Your task to perform on an android device: View the shopping cart on amazon. Search for razer blade on amazon, select the first entry, add it to the cart, then select checkout. Image 0: 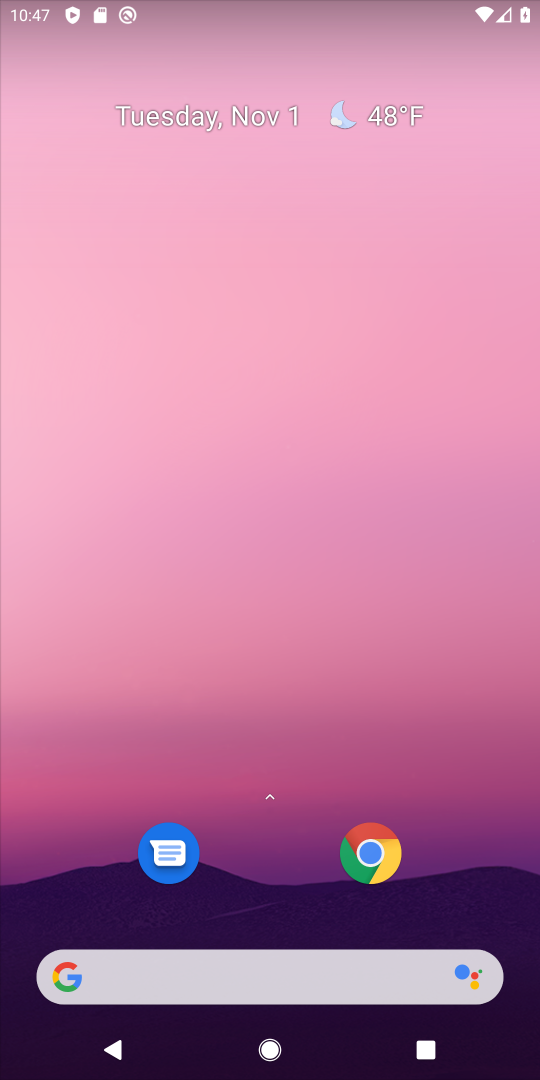
Step 0: drag from (332, 1024) to (406, 80)
Your task to perform on an android device: View the shopping cart on amazon. Search for razer blade on amazon, select the first entry, add it to the cart, then select checkout. Image 1: 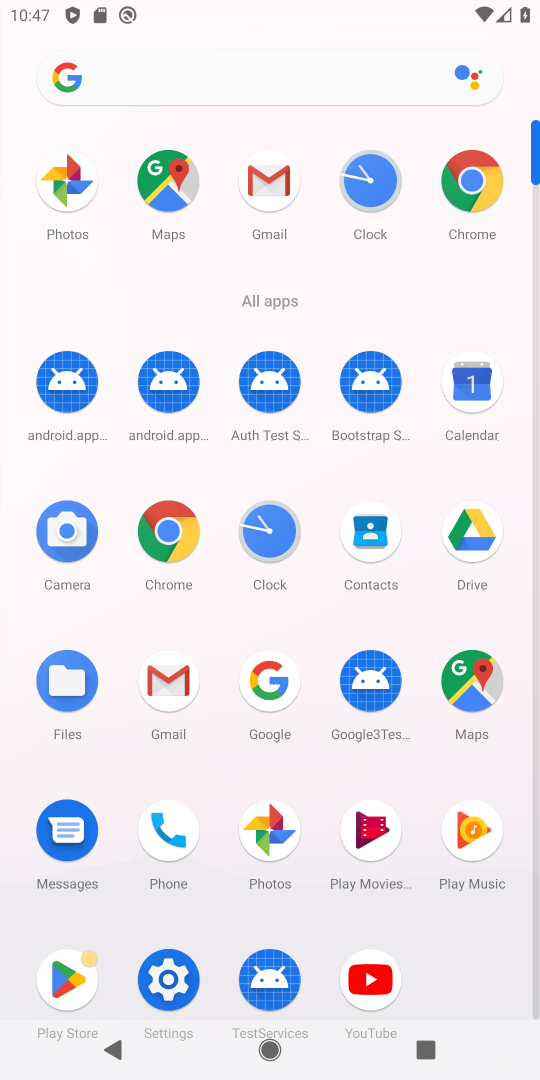
Step 1: click (160, 534)
Your task to perform on an android device: View the shopping cart on amazon. Search for razer blade on amazon, select the first entry, add it to the cart, then select checkout. Image 2: 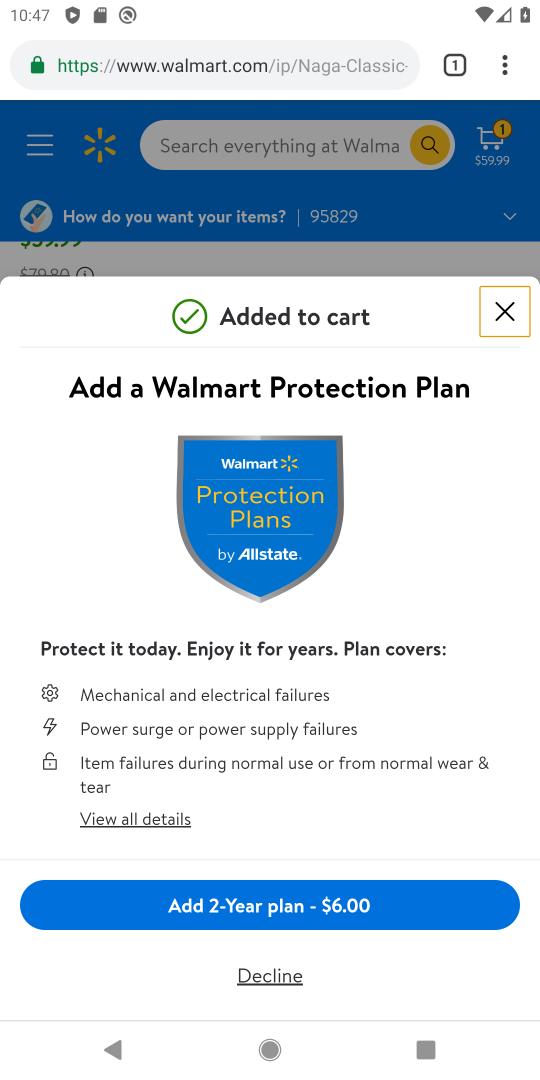
Step 2: click (127, 66)
Your task to perform on an android device: View the shopping cart on amazon. Search for razer blade on amazon, select the first entry, add it to the cart, then select checkout. Image 3: 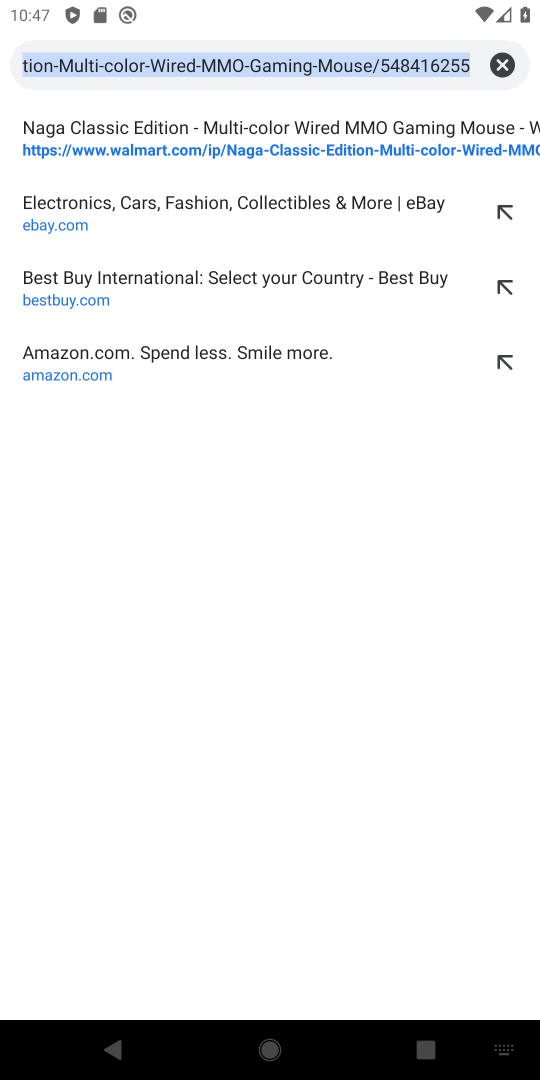
Step 3: click (498, 66)
Your task to perform on an android device: View the shopping cart on amazon. Search for razer blade on amazon, select the first entry, add it to the cart, then select checkout. Image 4: 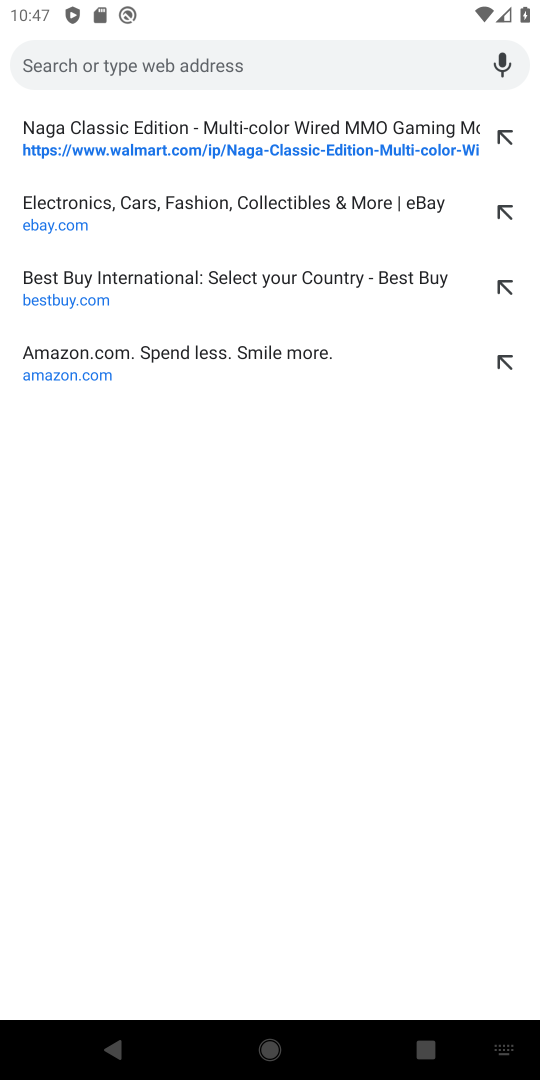
Step 4: type " amazon"
Your task to perform on an android device: View the shopping cart on amazon. Search for razer blade on amazon, select the first entry, add it to the cart, then select checkout. Image 5: 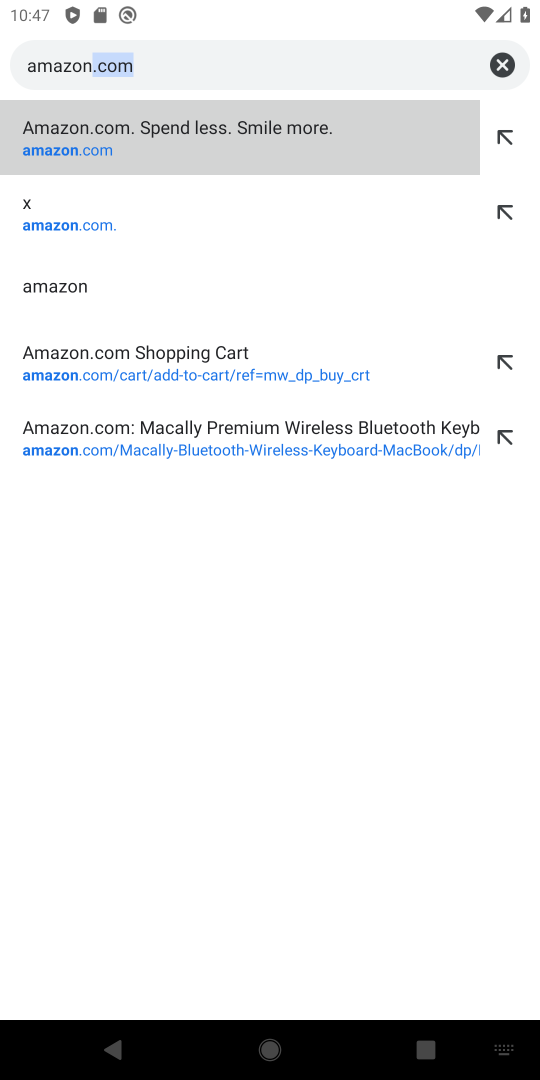
Step 5: click (73, 142)
Your task to perform on an android device: View the shopping cart on amazon. Search for razer blade on amazon, select the first entry, add it to the cart, then select checkout. Image 6: 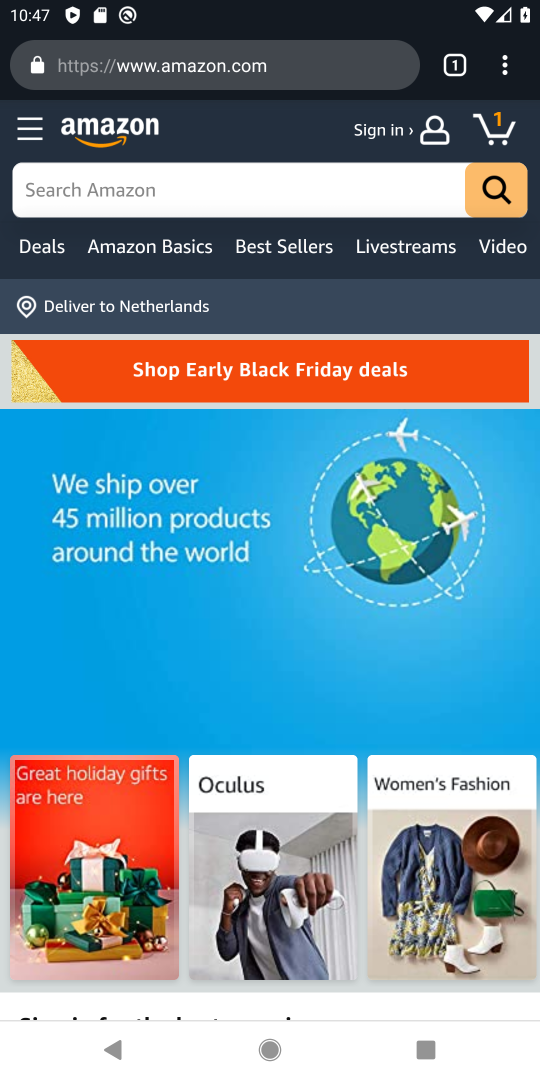
Step 6: click (216, 181)
Your task to perform on an android device: View the shopping cart on amazon. Search for razer blade on amazon, select the first entry, add it to the cart, then select checkout. Image 7: 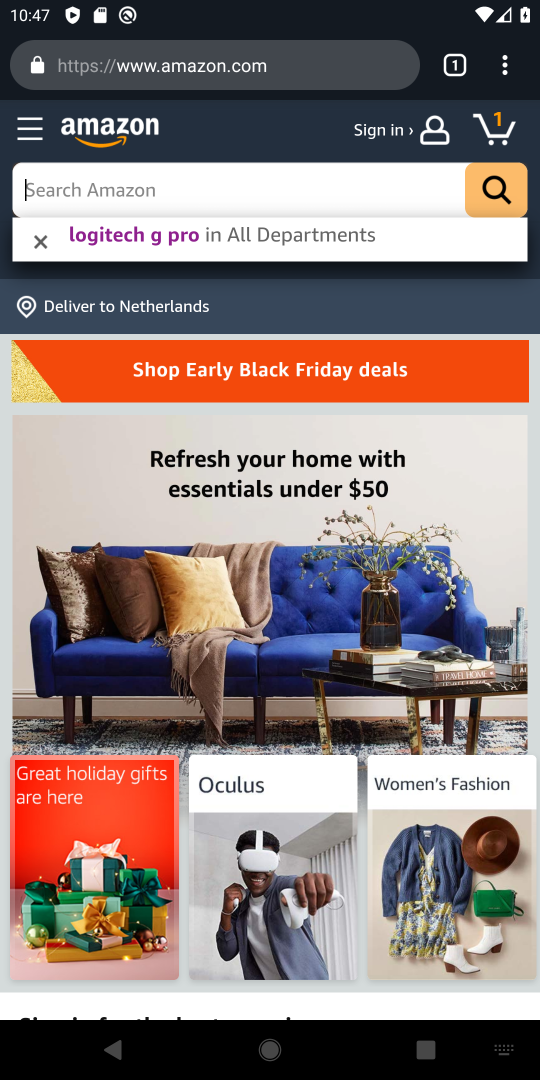
Step 7: type "razer blade"
Your task to perform on an android device: View the shopping cart on amazon. Search for razer blade on amazon, select the first entry, add it to the cart, then select checkout. Image 8: 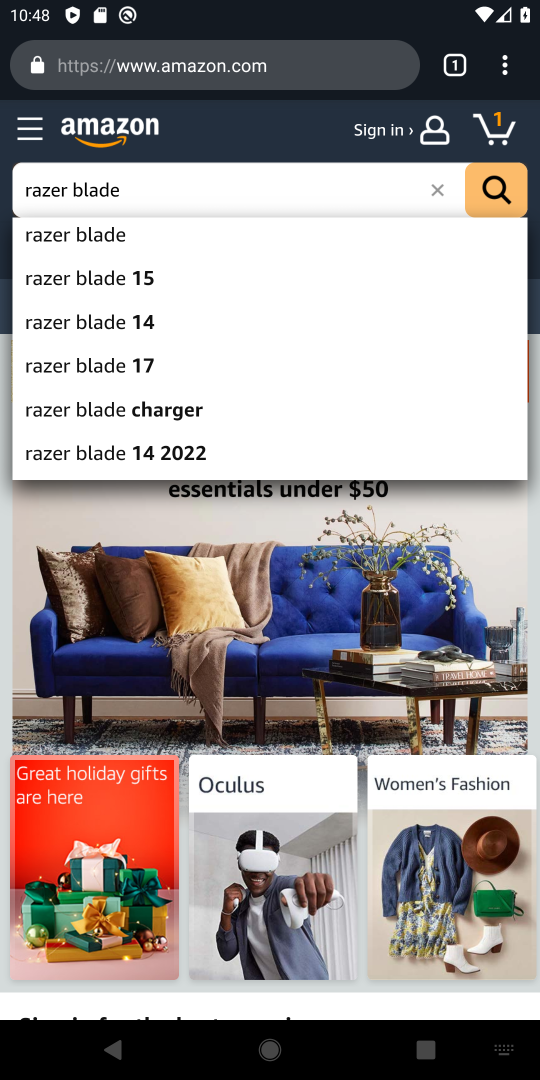
Step 8: click (490, 185)
Your task to perform on an android device: View the shopping cart on amazon. Search for razer blade on amazon, select the first entry, add it to the cart, then select checkout. Image 9: 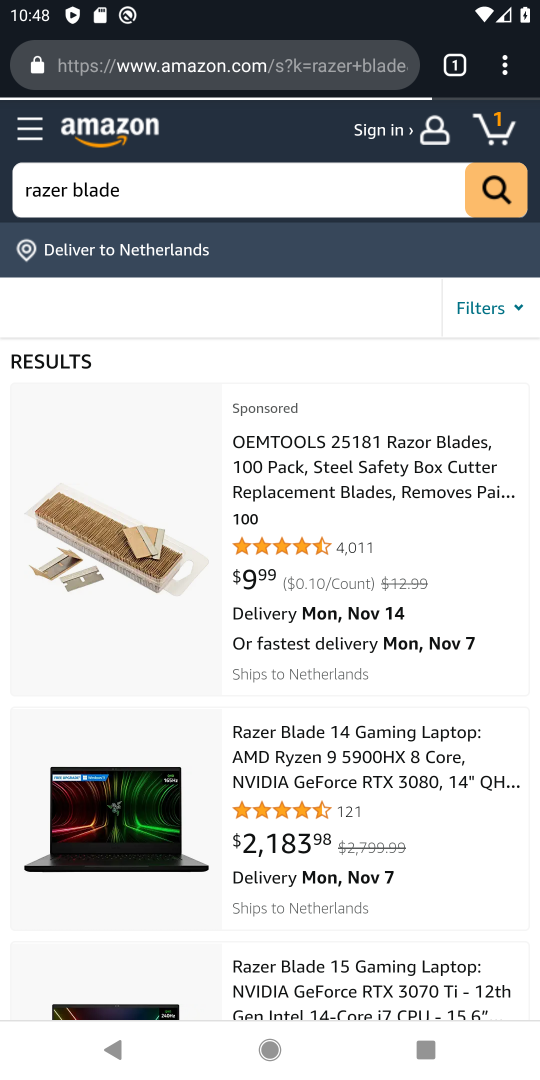
Step 9: click (182, 482)
Your task to perform on an android device: View the shopping cart on amazon. Search for razer blade on amazon, select the first entry, add it to the cart, then select checkout. Image 10: 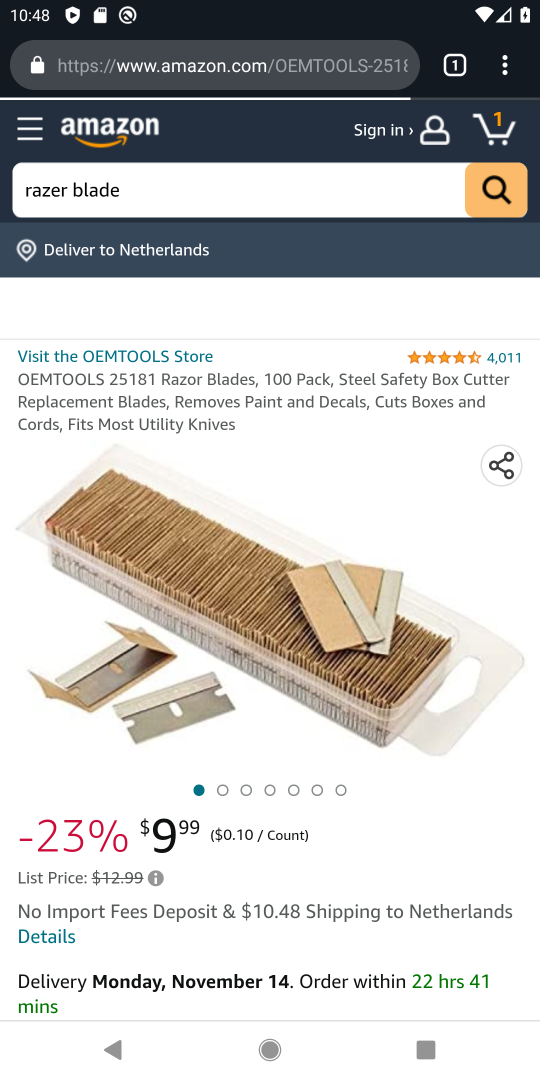
Step 10: drag from (346, 869) to (357, 340)
Your task to perform on an android device: View the shopping cart on amazon. Search for razer blade on amazon, select the first entry, add it to the cart, then select checkout. Image 11: 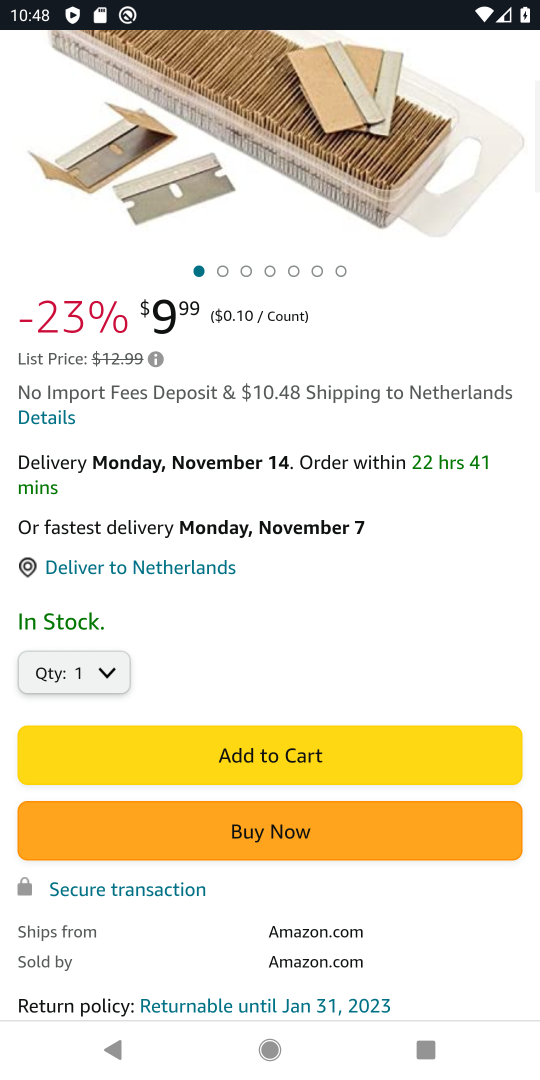
Step 11: click (213, 755)
Your task to perform on an android device: View the shopping cart on amazon. Search for razer blade on amazon, select the first entry, add it to the cart, then select checkout. Image 12: 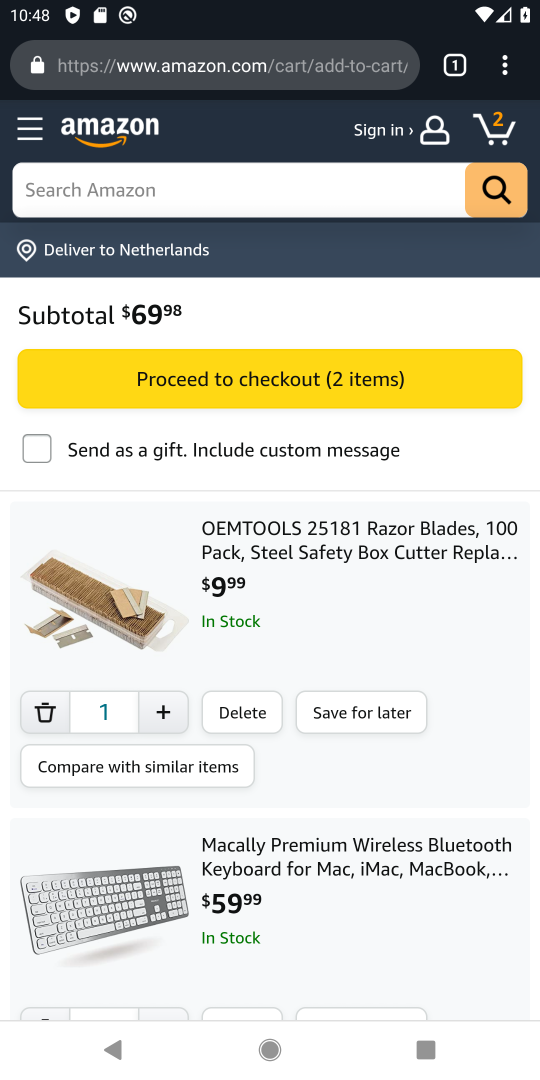
Step 12: task complete